Your task to perform on an android device: Open the phone app and click the voicemail tab. Image 0: 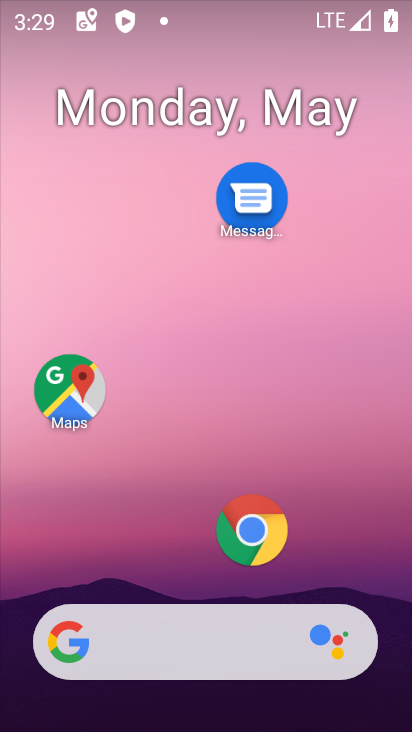
Step 0: drag from (206, 533) to (289, 27)
Your task to perform on an android device: Open the phone app and click the voicemail tab. Image 1: 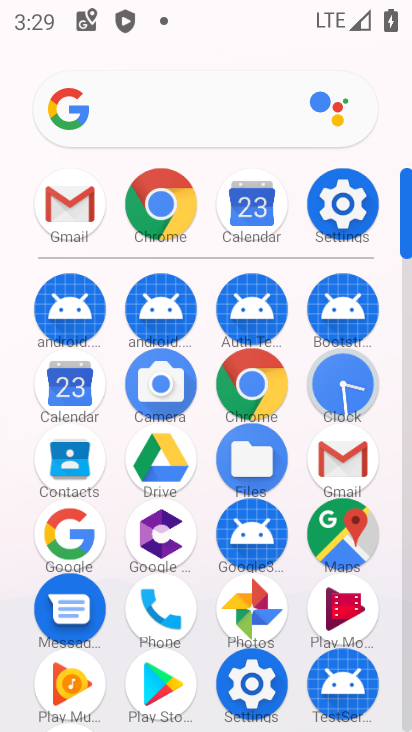
Step 1: click (170, 588)
Your task to perform on an android device: Open the phone app and click the voicemail tab. Image 2: 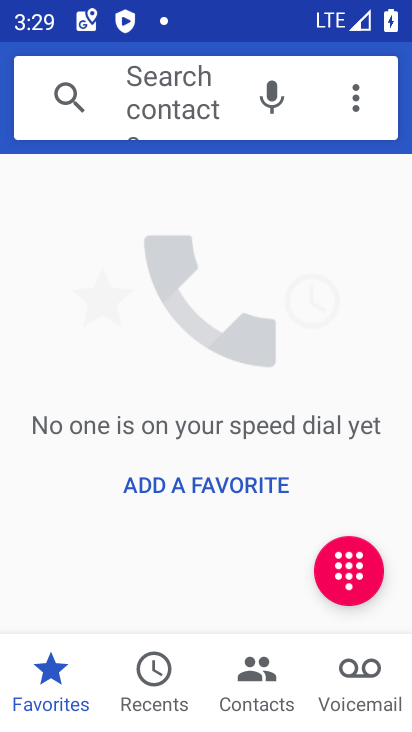
Step 2: click (367, 681)
Your task to perform on an android device: Open the phone app and click the voicemail tab. Image 3: 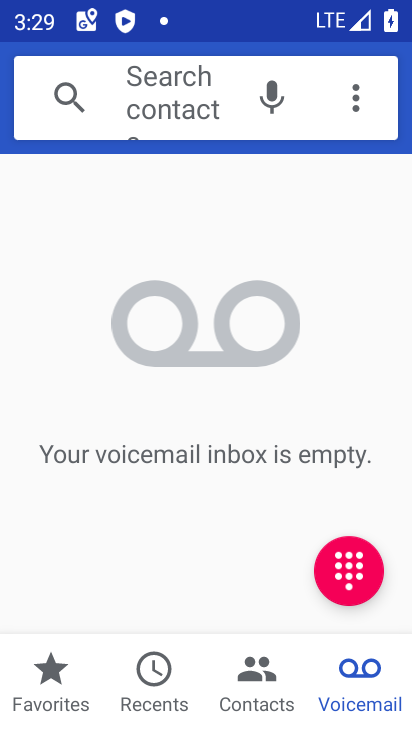
Step 3: task complete